Your task to perform on an android device: Empty the shopping cart on amazon. Image 0: 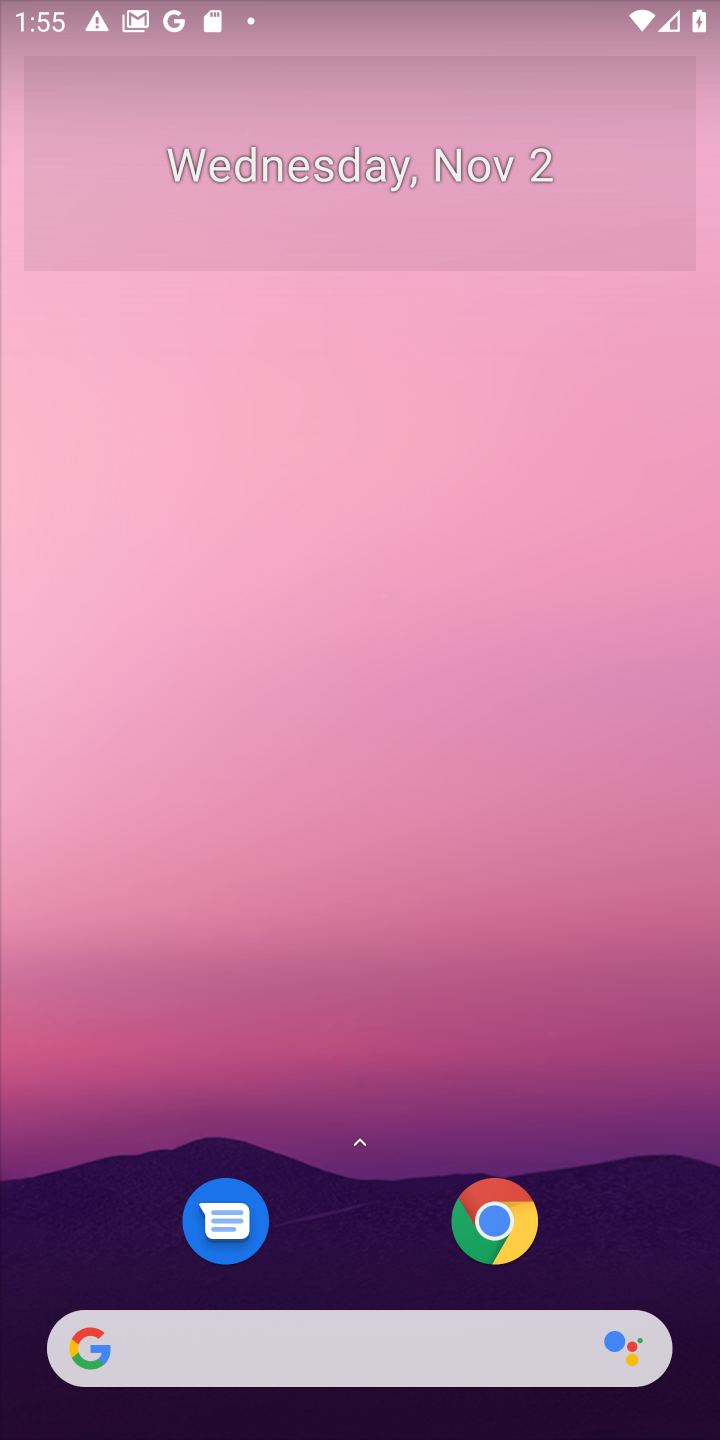
Step 0: click (516, 1381)
Your task to perform on an android device: Empty the shopping cart on amazon. Image 1: 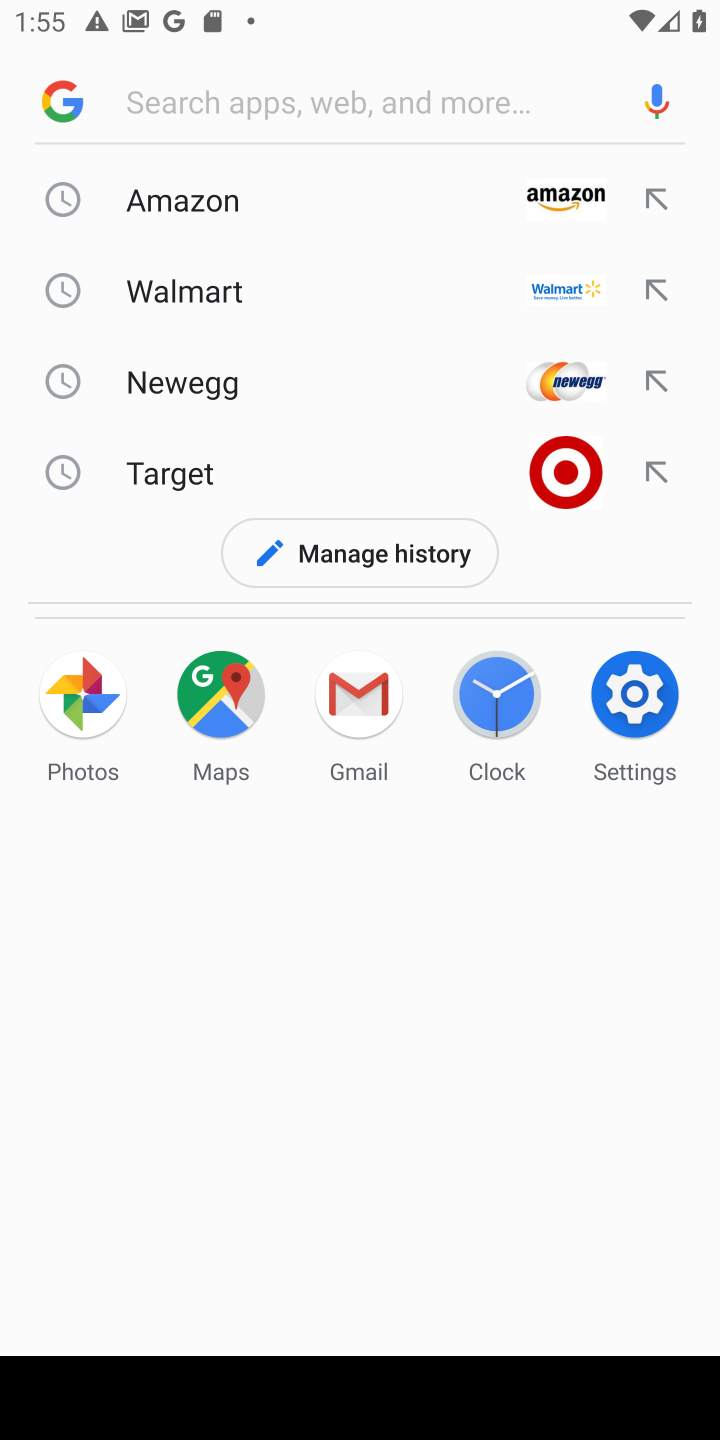
Step 1: type "amazone"
Your task to perform on an android device: Empty the shopping cart on amazon. Image 2: 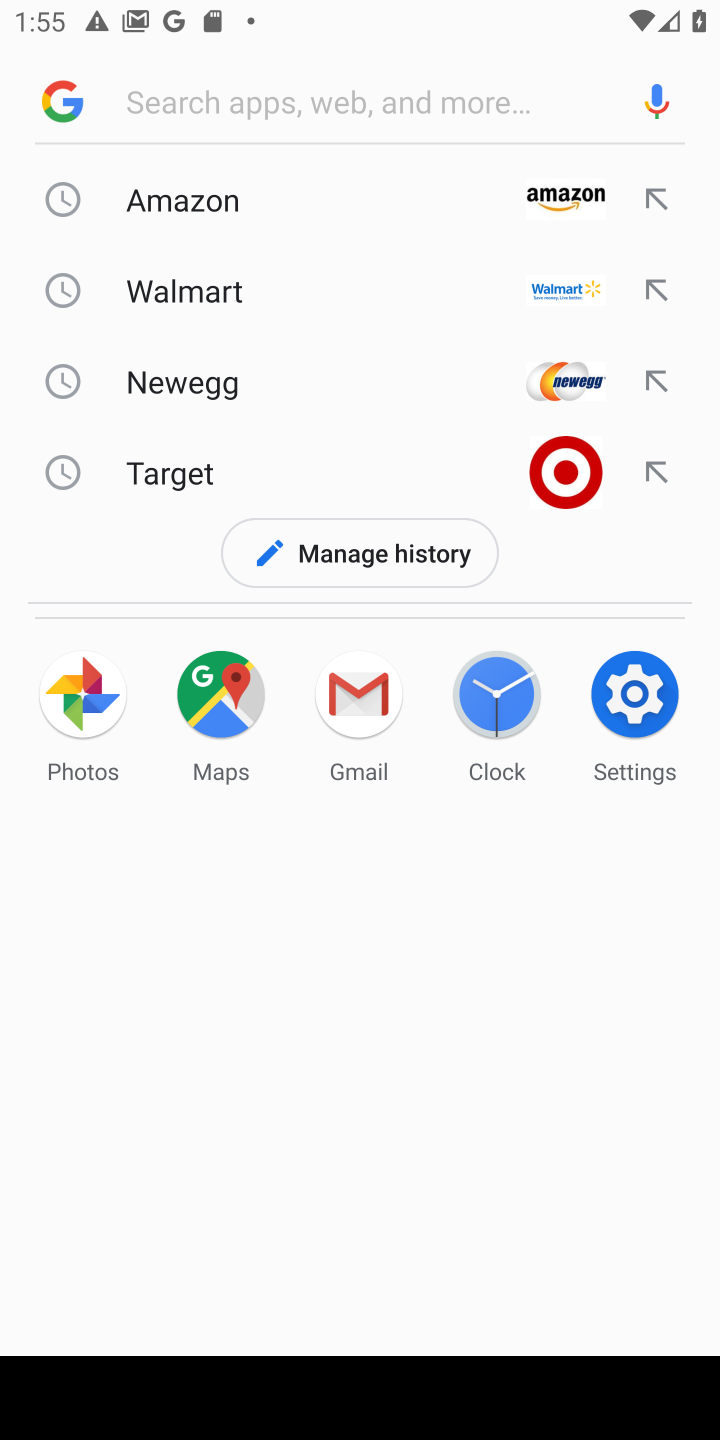
Step 2: click (172, 180)
Your task to perform on an android device: Empty the shopping cart on amazon. Image 3: 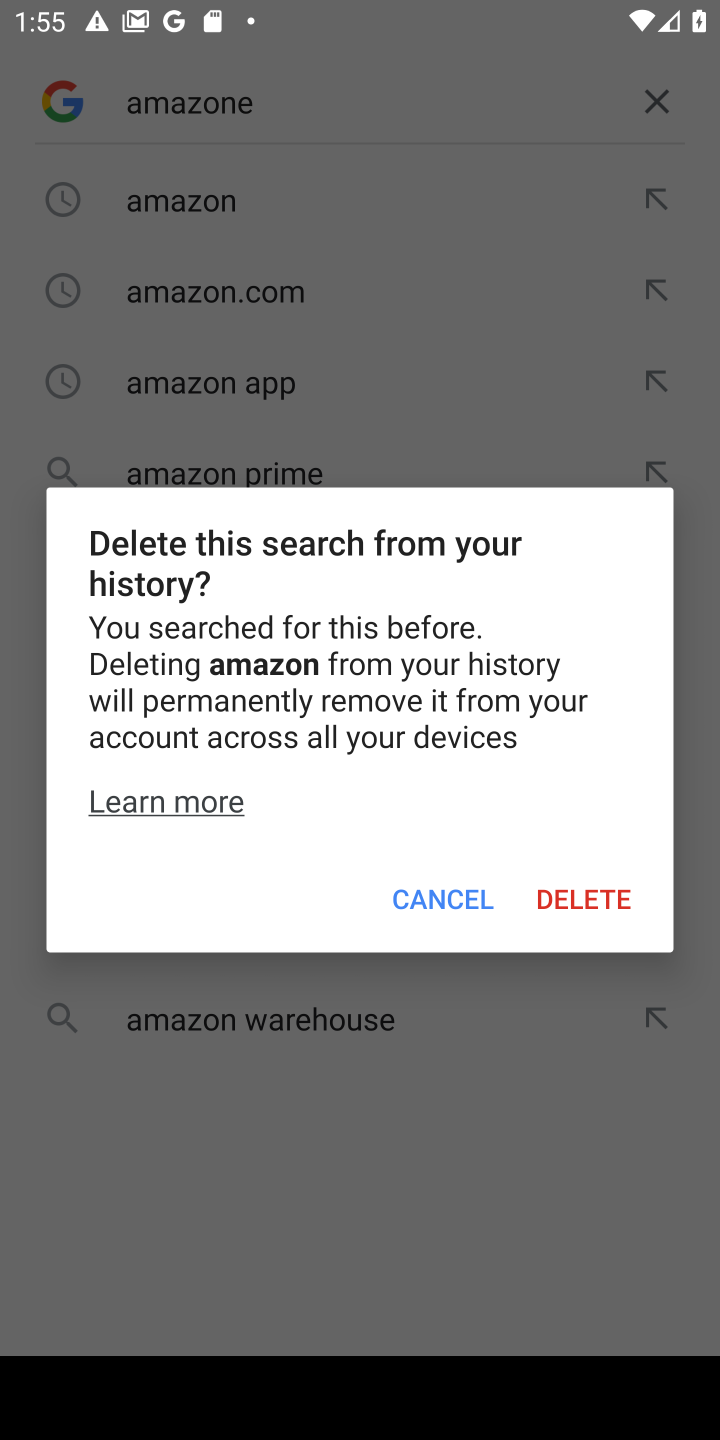
Step 3: click (453, 905)
Your task to perform on an android device: Empty the shopping cart on amazon. Image 4: 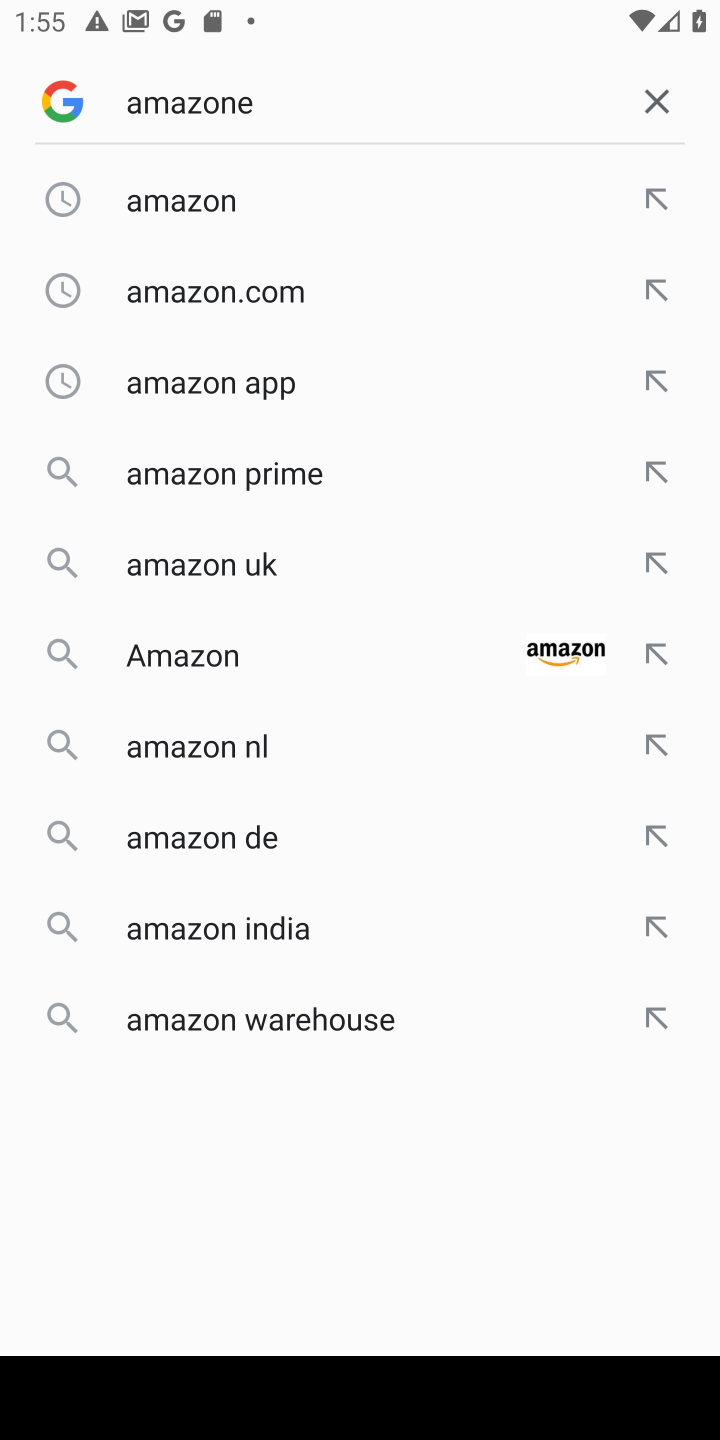
Step 4: click (372, 232)
Your task to perform on an android device: Empty the shopping cart on amazon. Image 5: 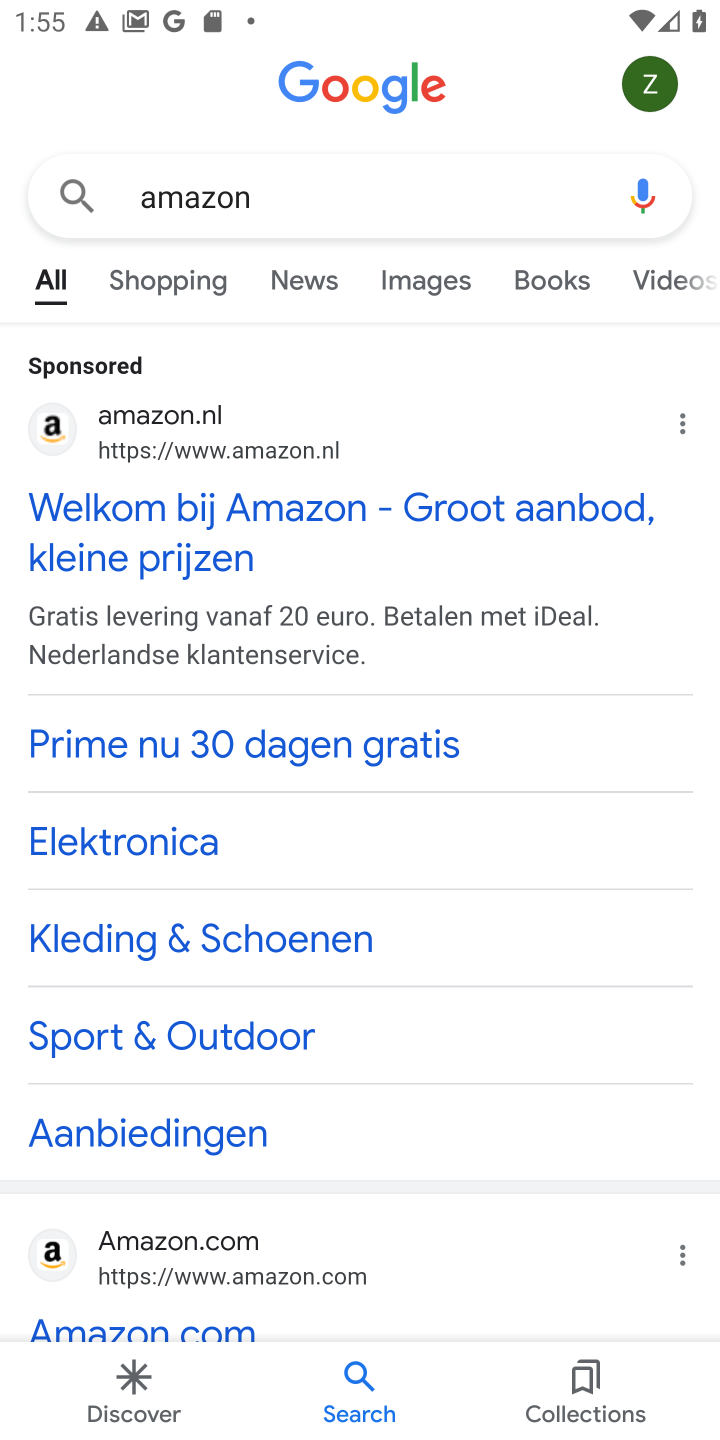
Step 5: click (163, 531)
Your task to perform on an android device: Empty the shopping cart on amazon. Image 6: 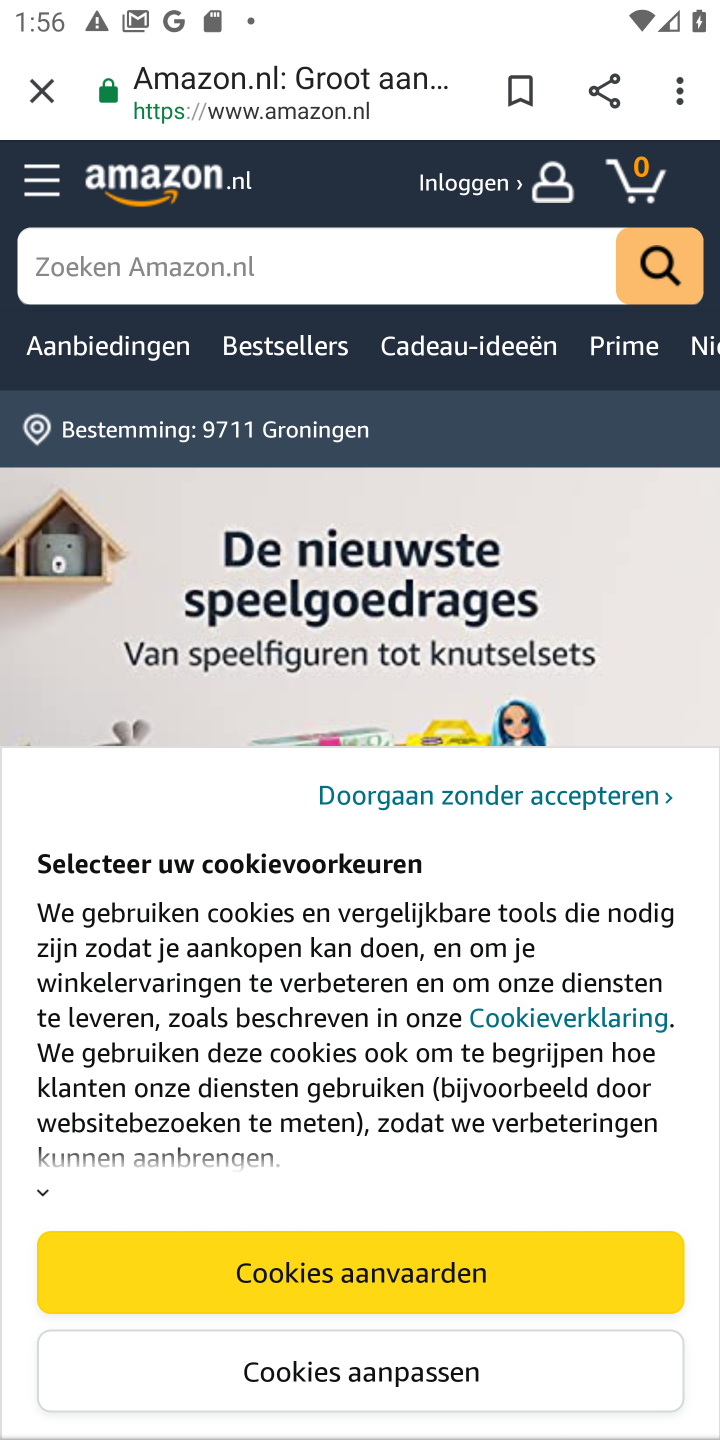
Step 6: click (644, 163)
Your task to perform on an android device: Empty the shopping cart on amazon. Image 7: 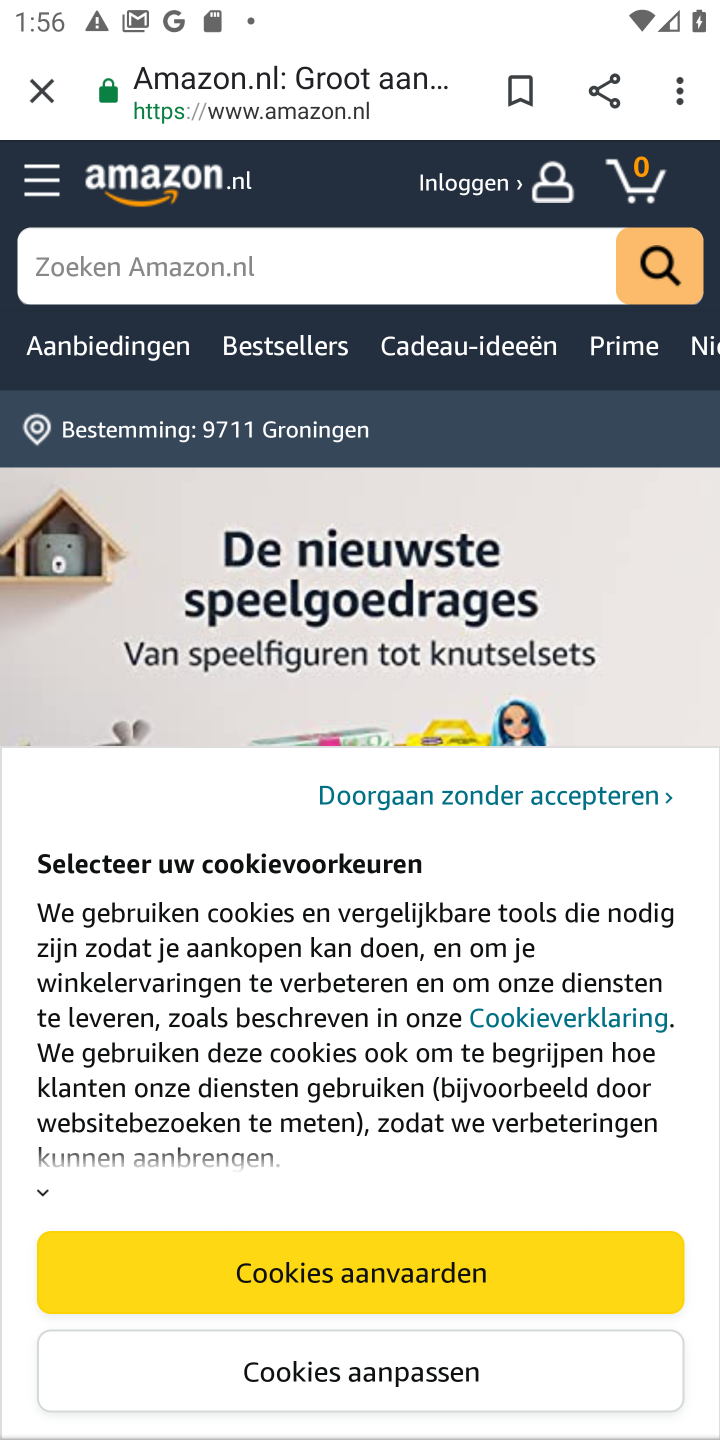
Step 7: task complete